Your task to perform on an android device: Show me recent news Image 0: 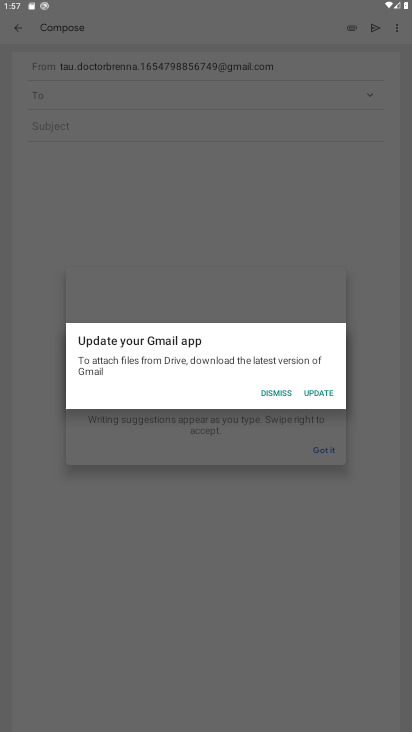
Step 0: press home button
Your task to perform on an android device: Show me recent news Image 1: 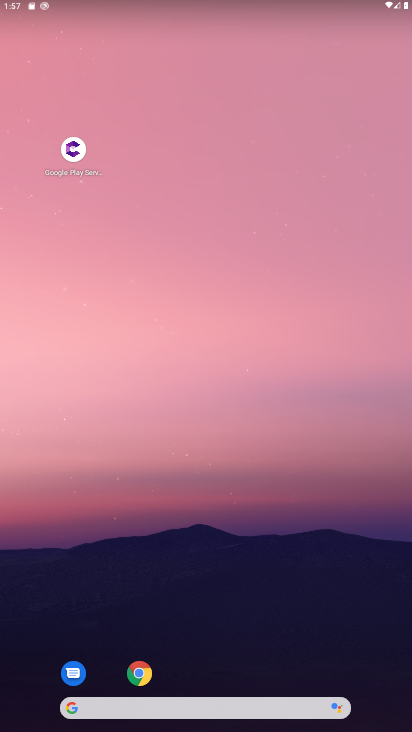
Step 1: drag from (206, 704) to (183, 111)
Your task to perform on an android device: Show me recent news Image 2: 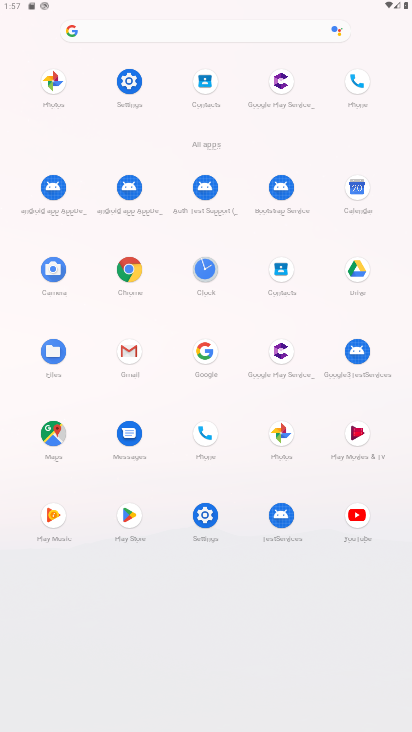
Step 2: click (135, 272)
Your task to perform on an android device: Show me recent news Image 3: 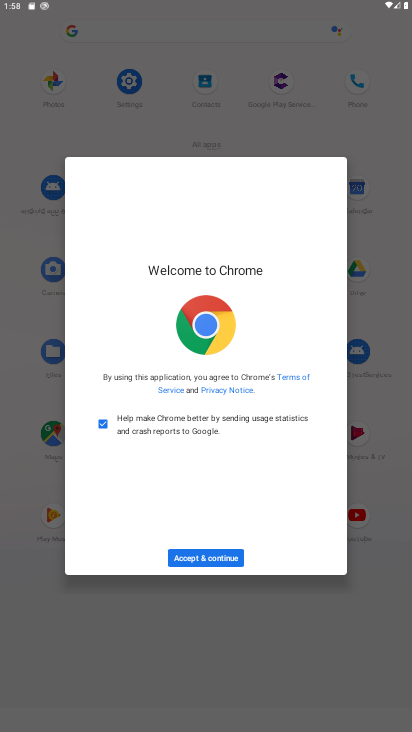
Step 3: click (216, 554)
Your task to perform on an android device: Show me recent news Image 4: 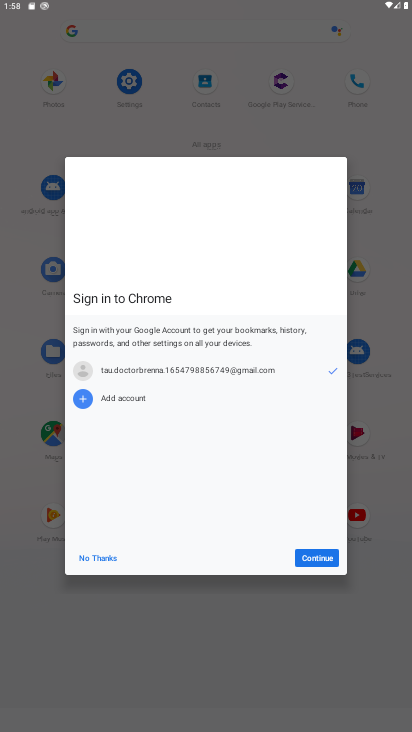
Step 4: click (315, 561)
Your task to perform on an android device: Show me recent news Image 5: 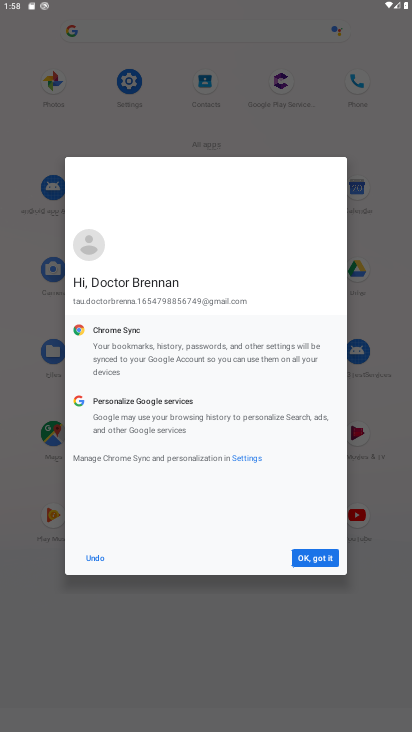
Step 5: click (299, 556)
Your task to perform on an android device: Show me recent news Image 6: 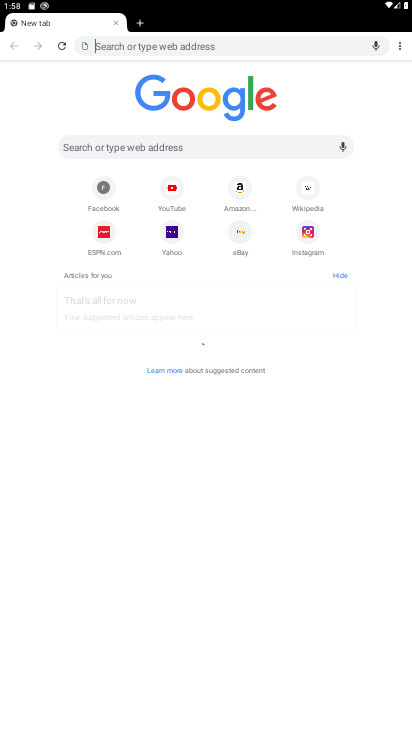
Step 6: click (166, 142)
Your task to perform on an android device: Show me recent news Image 7: 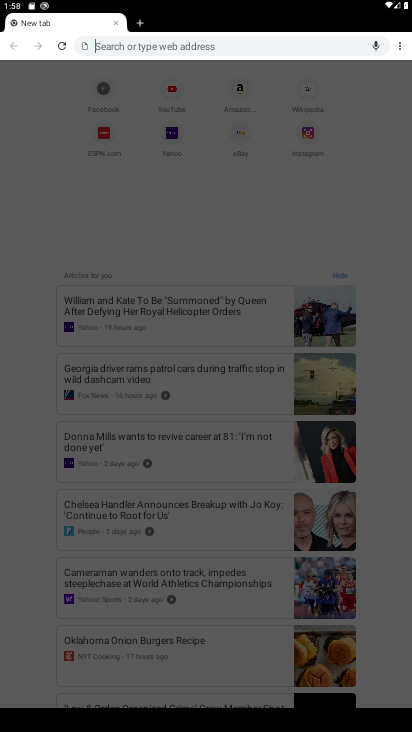
Step 7: type "recent news"
Your task to perform on an android device: Show me recent news Image 8: 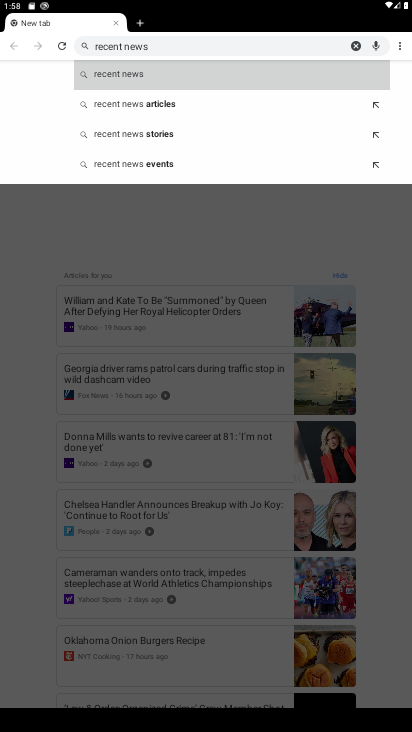
Step 8: click (142, 64)
Your task to perform on an android device: Show me recent news Image 9: 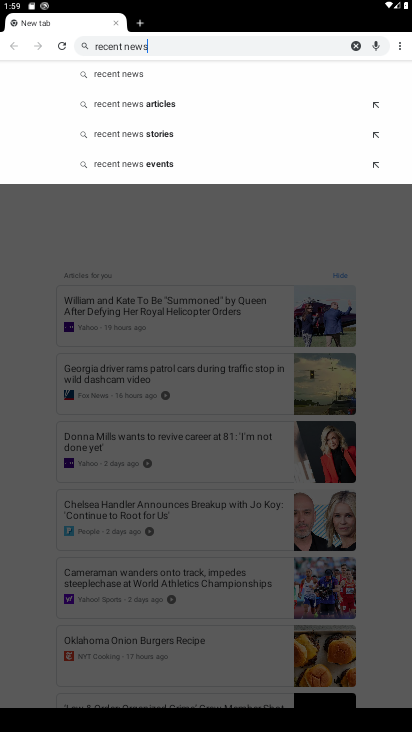
Step 9: click (120, 70)
Your task to perform on an android device: Show me recent news Image 10: 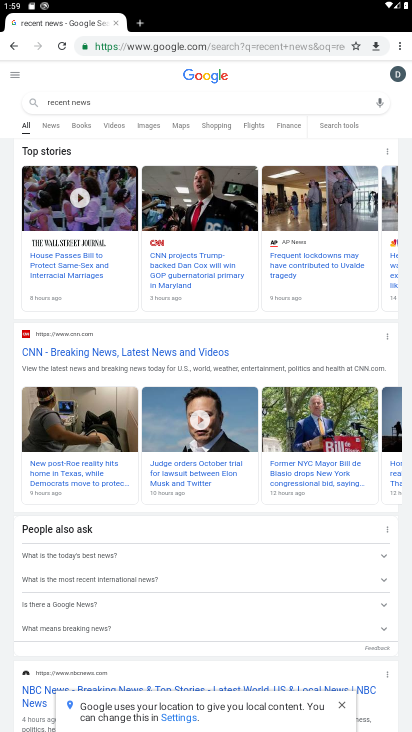
Step 10: task complete